Your task to perform on an android device: Turn off the flashlight Image 0: 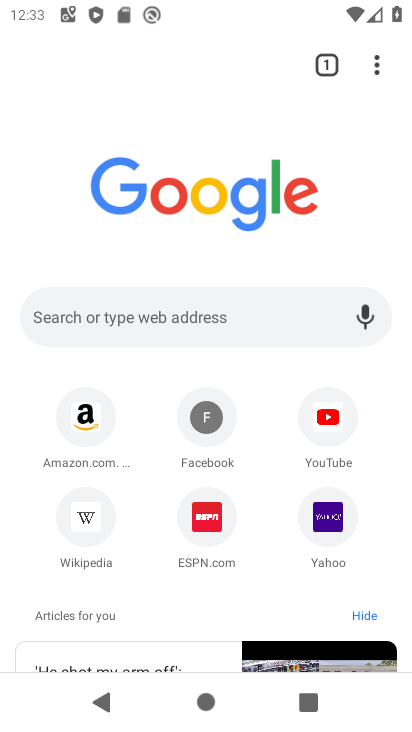
Step 0: press home button
Your task to perform on an android device: Turn off the flashlight Image 1: 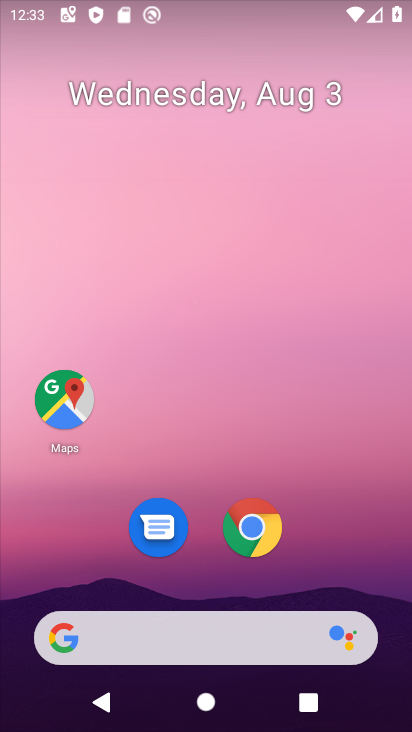
Step 1: drag from (209, 575) to (196, 64)
Your task to perform on an android device: Turn off the flashlight Image 2: 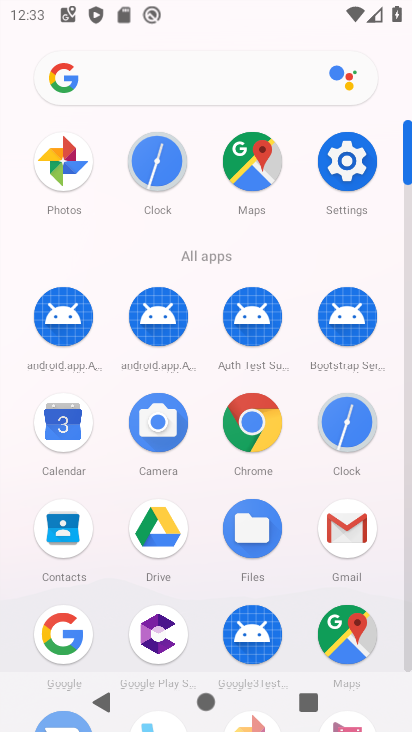
Step 2: click (346, 175)
Your task to perform on an android device: Turn off the flashlight Image 3: 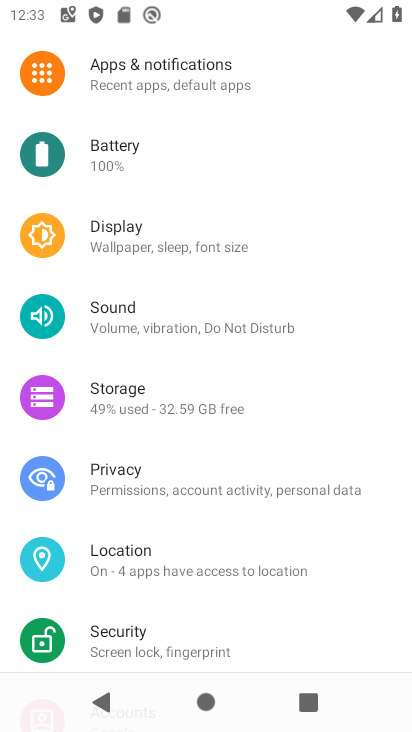
Step 3: drag from (199, 127) to (198, 463)
Your task to perform on an android device: Turn off the flashlight Image 4: 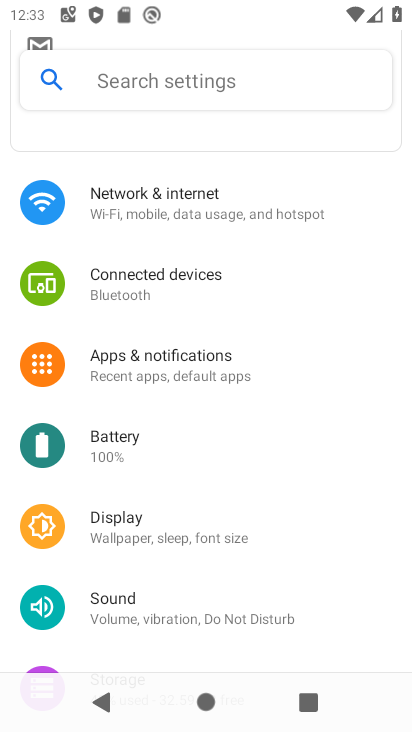
Step 4: click (203, 78)
Your task to perform on an android device: Turn off the flashlight Image 5: 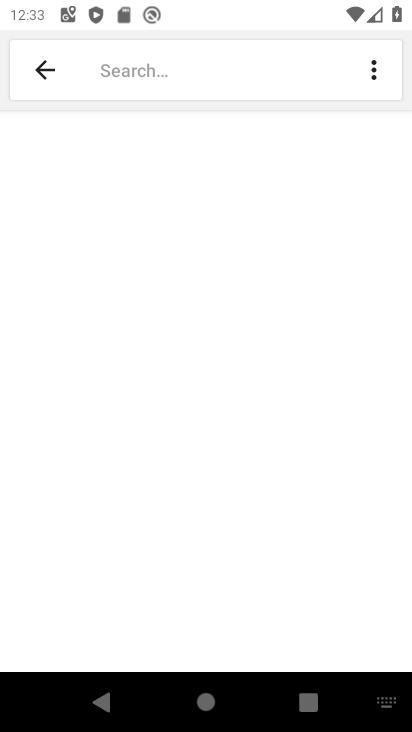
Step 5: type "flashlight"
Your task to perform on an android device: Turn off the flashlight Image 6: 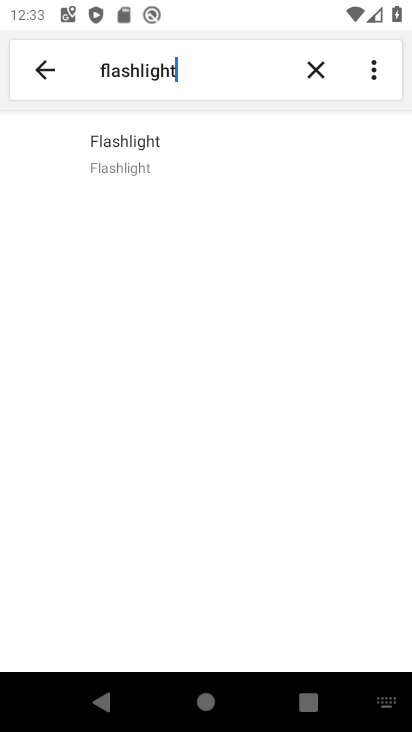
Step 6: click (166, 140)
Your task to perform on an android device: Turn off the flashlight Image 7: 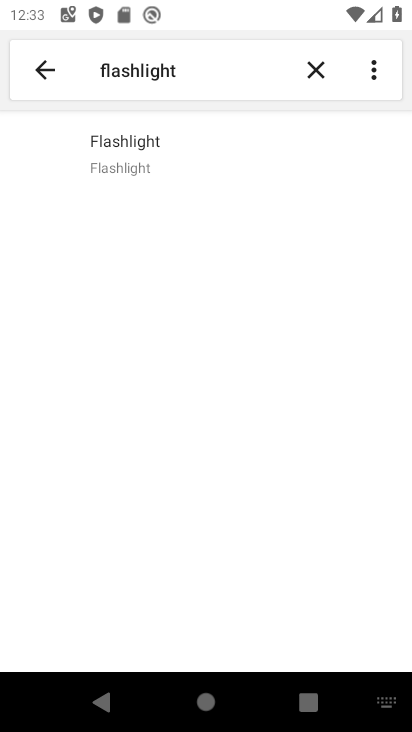
Step 7: click (146, 153)
Your task to perform on an android device: Turn off the flashlight Image 8: 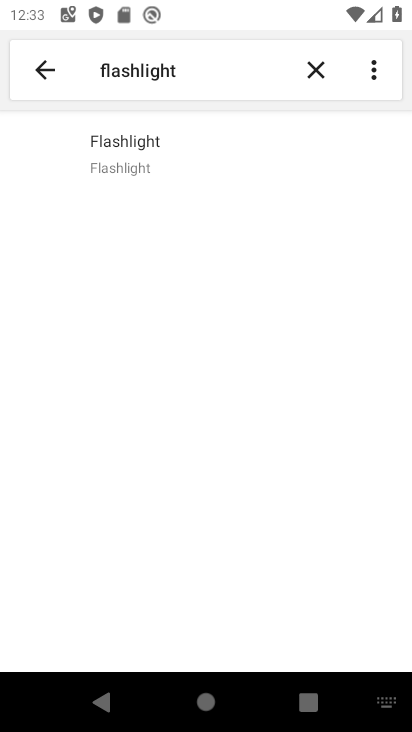
Step 8: click (147, 154)
Your task to perform on an android device: Turn off the flashlight Image 9: 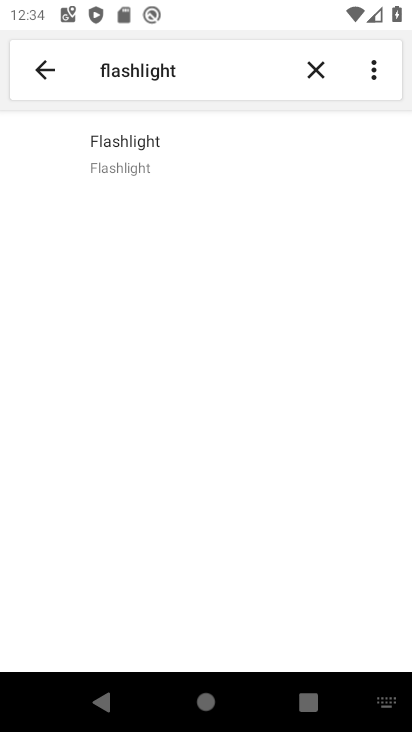
Step 9: task complete